Your task to perform on an android device: change notifications settings Image 0: 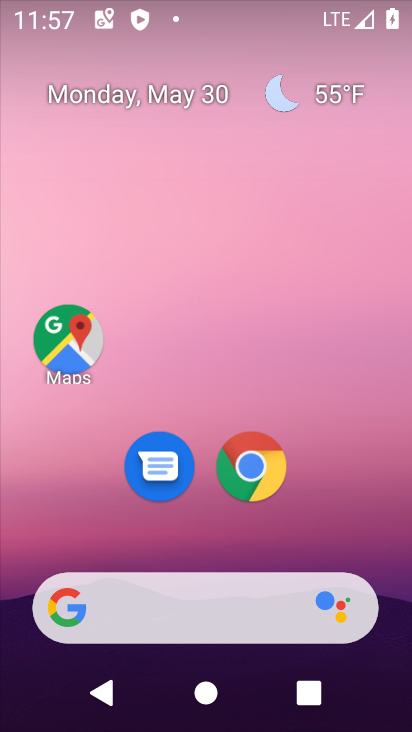
Step 0: drag from (359, 506) to (347, 0)
Your task to perform on an android device: change notifications settings Image 1: 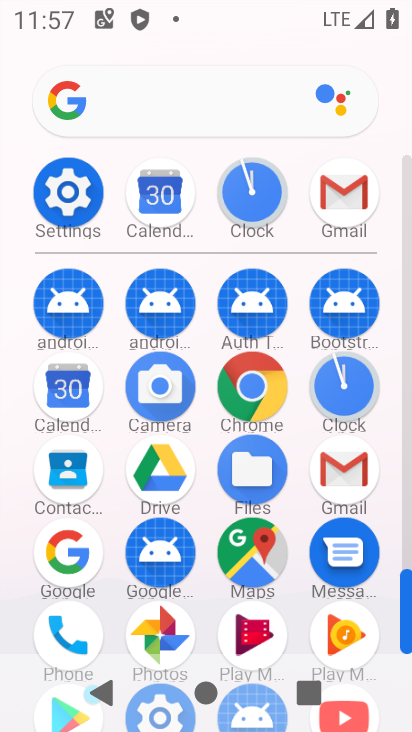
Step 1: click (67, 189)
Your task to perform on an android device: change notifications settings Image 2: 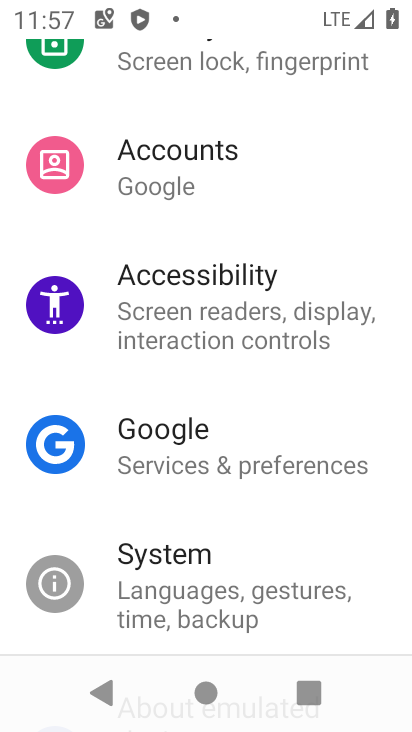
Step 2: drag from (245, 162) to (173, 712)
Your task to perform on an android device: change notifications settings Image 3: 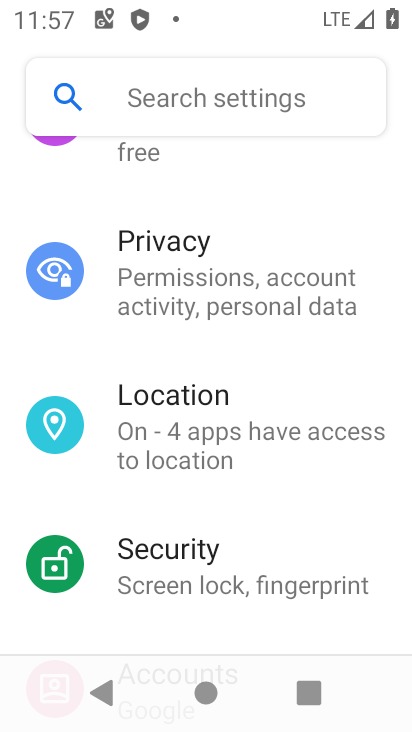
Step 3: drag from (201, 141) to (130, 715)
Your task to perform on an android device: change notifications settings Image 4: 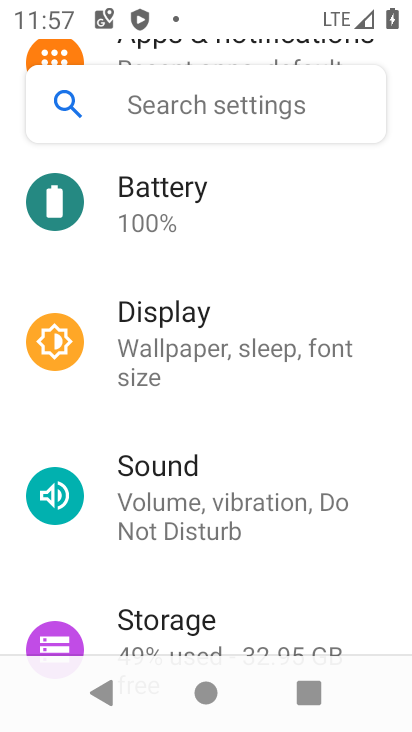
Step 4: drag from (158, 183) to (116, 561)
Your task to perform on an android device: change notifications settings Image 5: 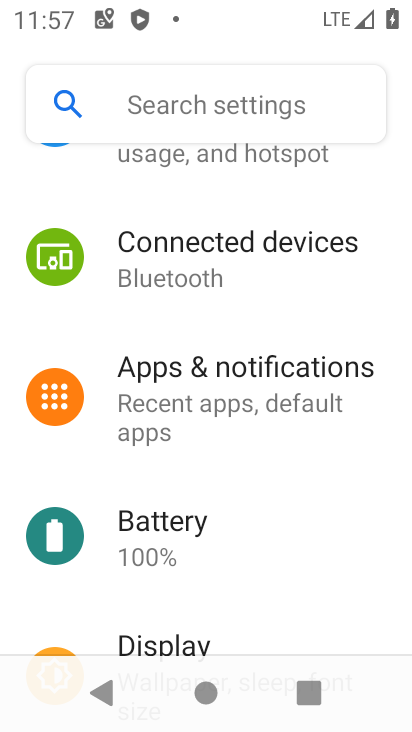
Step 5: click (140, 398)
Your task to perform on an android device: change notifications settings Image 6: 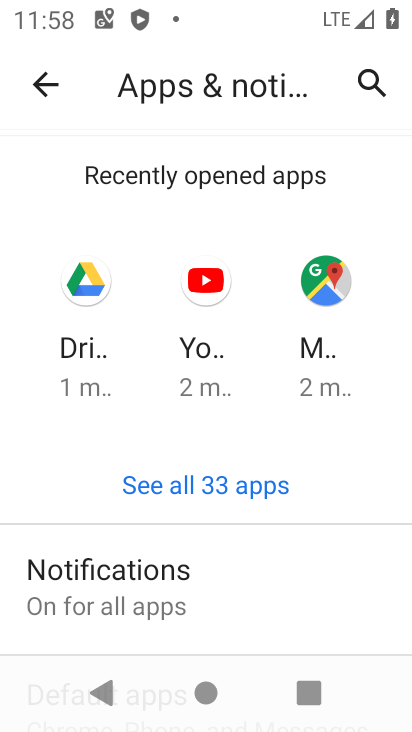
Step 6: drag from (161, 605) to (157, 325)
Your task to perform on an android device: change notifications settings Image 7: 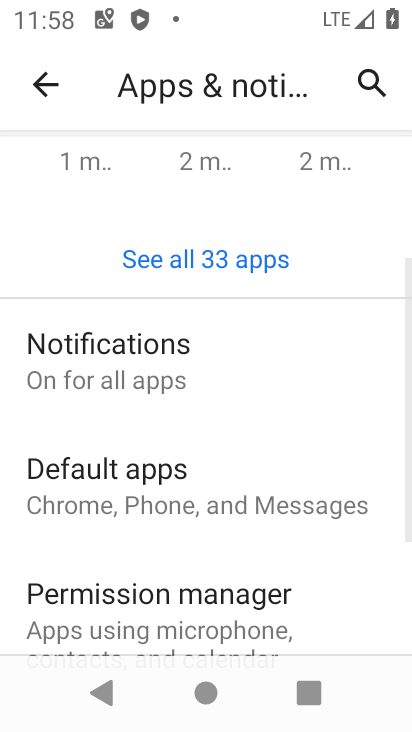
Step 7: click (146, 369)
Your task to perform on an android device: change notifications settings Image 8: 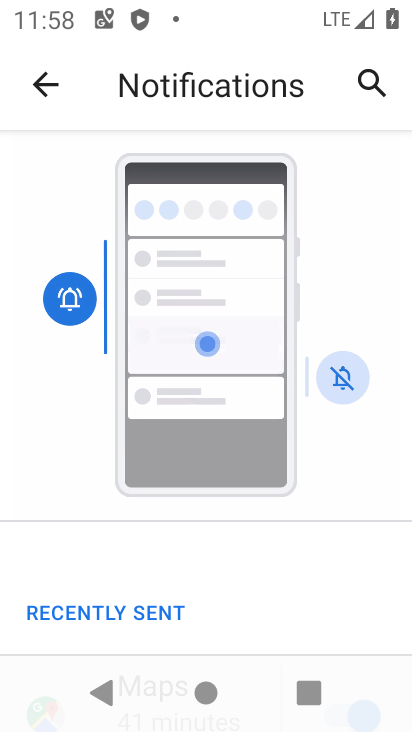
Step 8: task complete